Your task to perform on an android device: Go to ESPN.com Image 0: 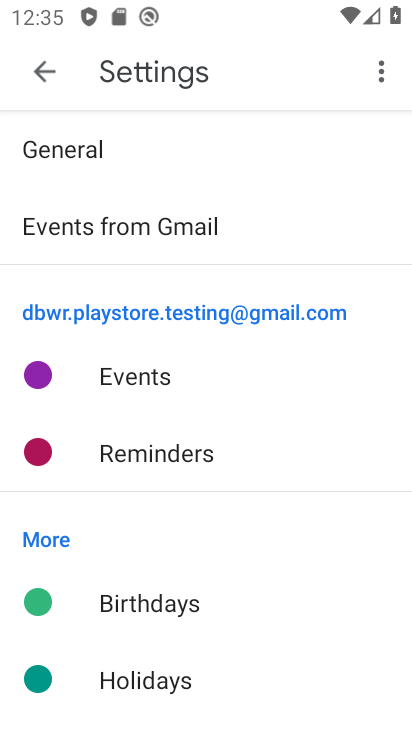
Step 0: task complete